Your task to perform on an android device: Clear all items from cart on newegg. Search for apple airpods pro on newegg, select the first entry, add it to the cart, then select checkout. Image 0: 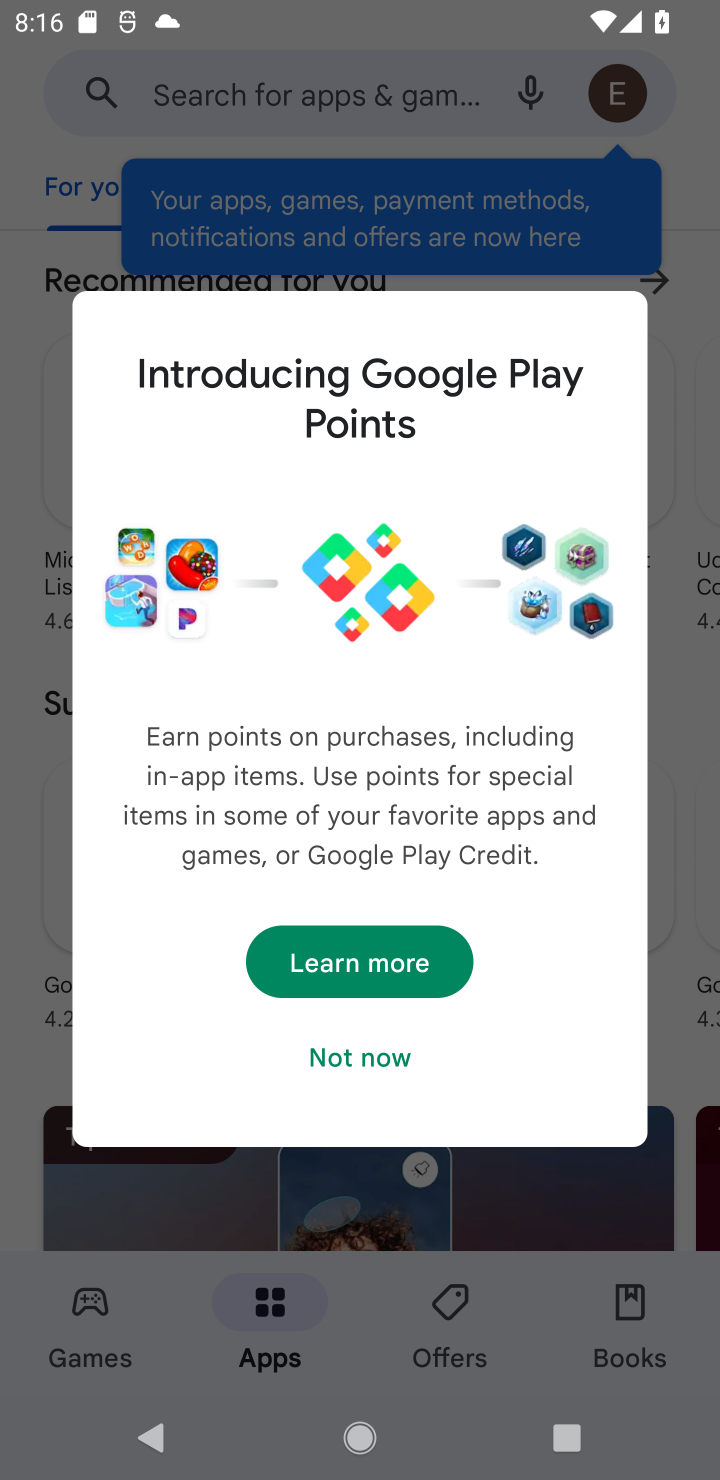
Step 0: press home button
Your task to perform on an android device: Clear all items from cart on newegg. Search for apple airpods pro on newegg, select the first entry, add it to the cart, then select checkout. Image 1: 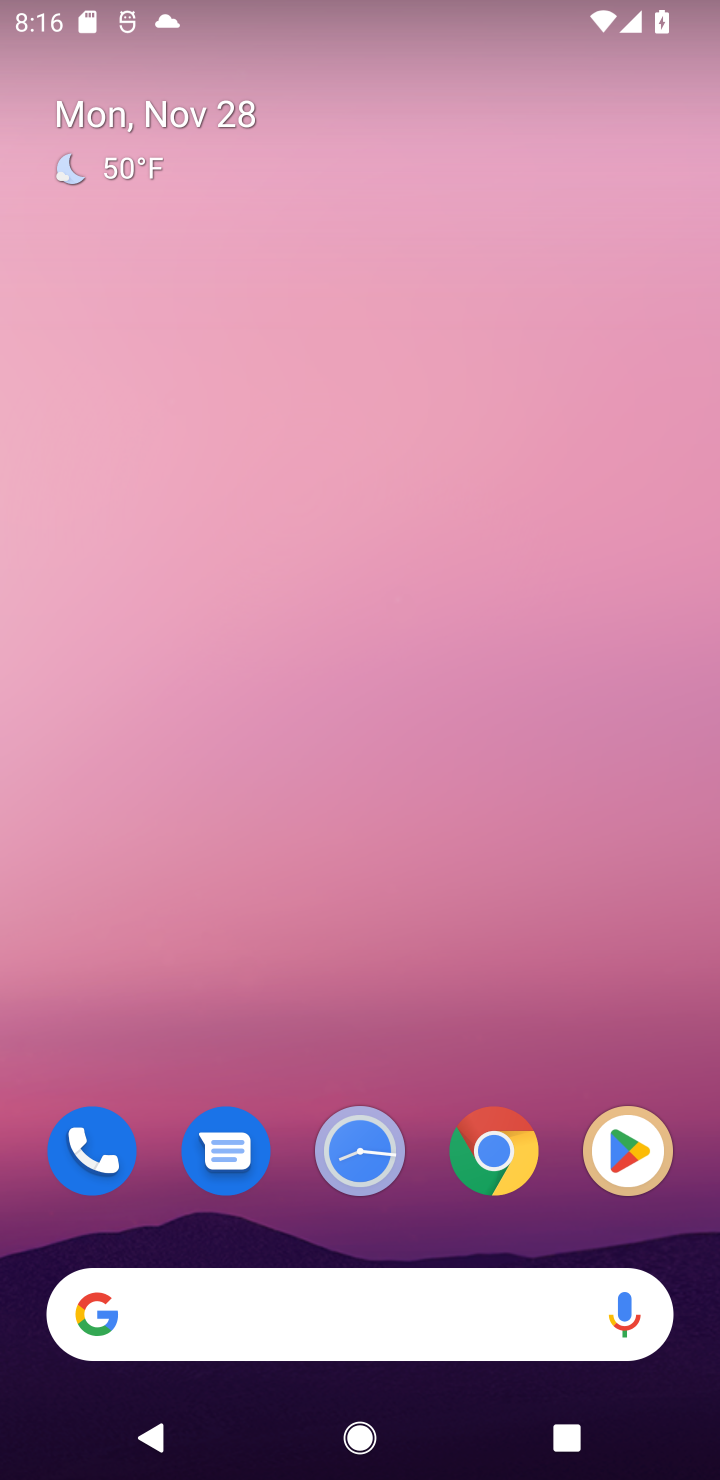
Step 1: click (351, 1326)
Your task to perform on an android device: Clear all items from cart on newegg. Search for apple airpods pro on newegg, select the first entry, add it to the cart, then select checkout. Image 2: 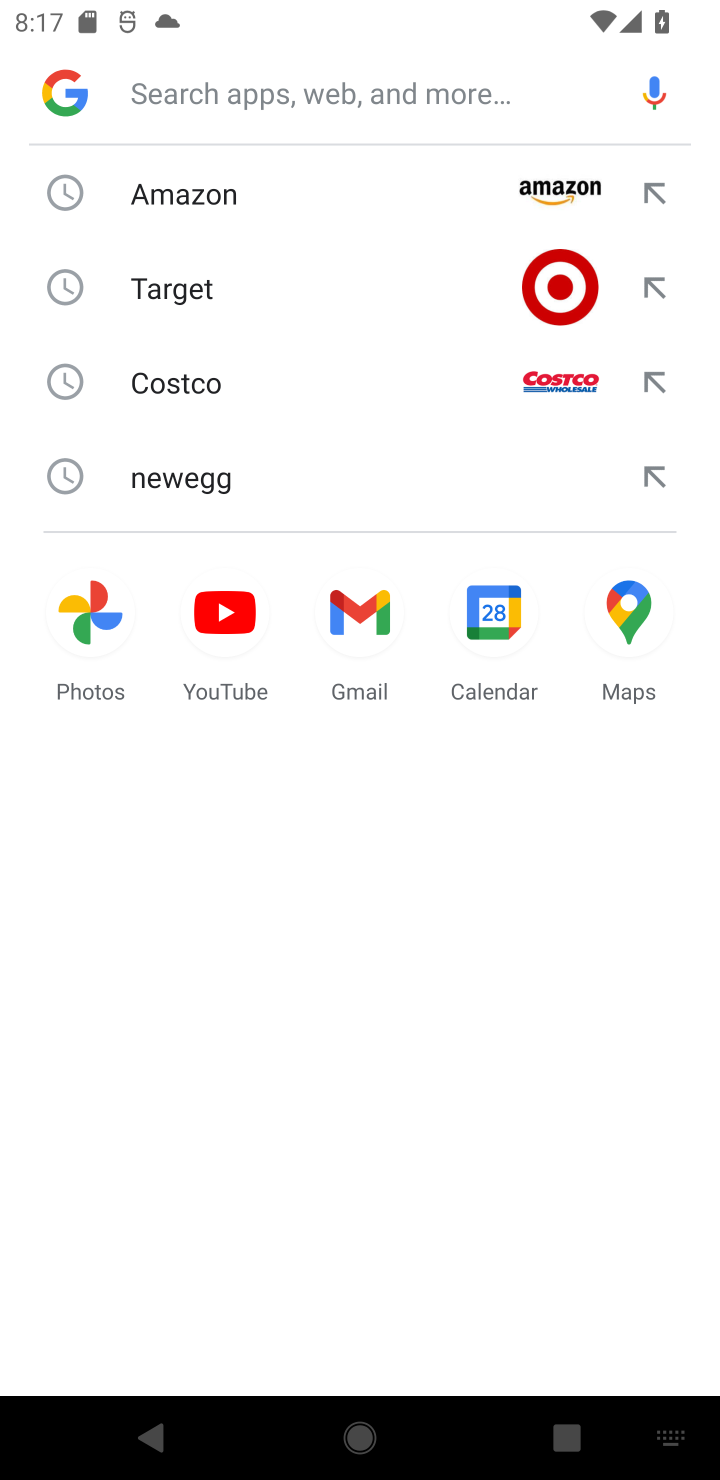
Step 2: type "apple airpod"
Your task to perform on an android device: Clear all items from cart on newegg. Search for apple airpods pro on newegg, select the first entry, add it to the cart, then select checkout. Image 3: 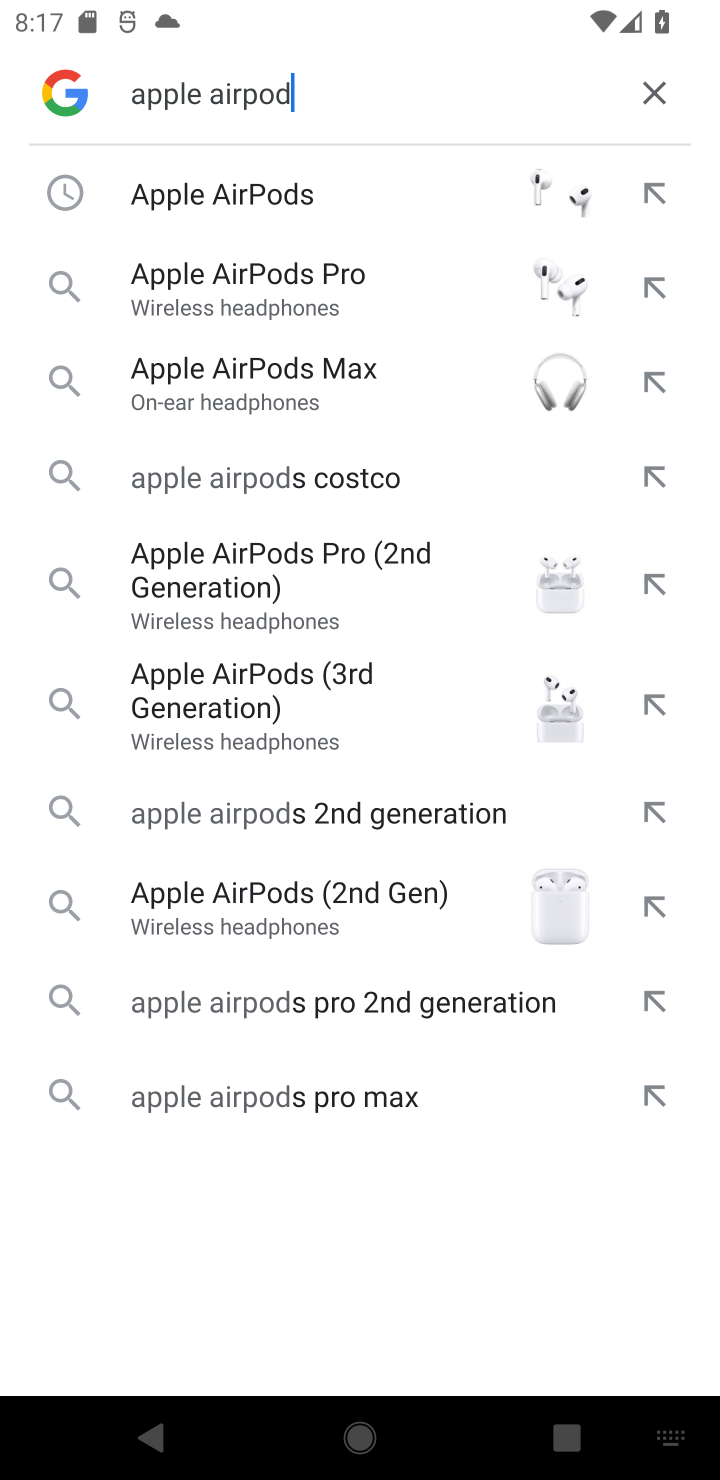
Step 3: click (264, 223)
Your task to perform on an android device: Clear all items from cart on newegg. Search for apple airpods pro on newegg, select the first entry, add it to the cart, then select checkout. Image 4: 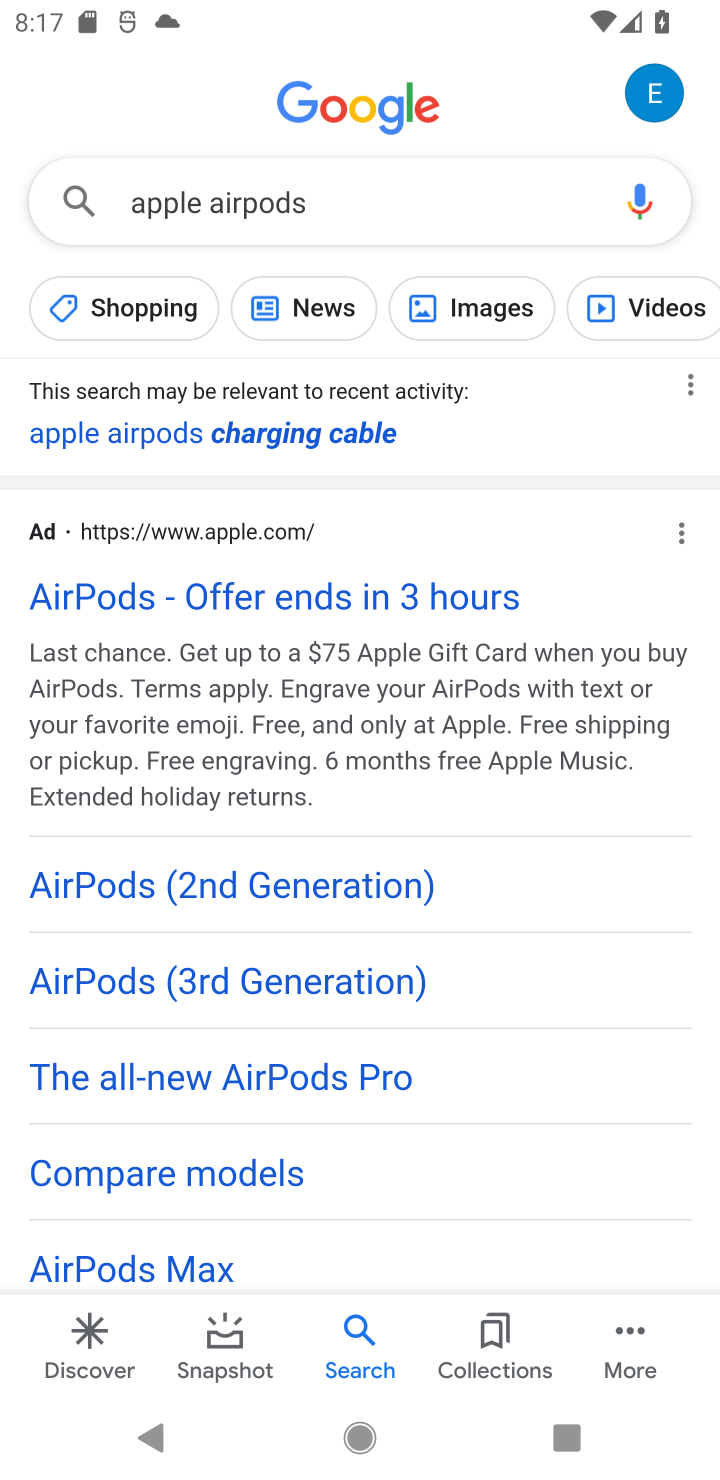
Step 4: click (235, 577)
Your task to perform on an android device: Clear all items from cart on newegg. Search for apple airpods pro on newegg, select the first entry, add it to the cart, then select checkout. Image 5: 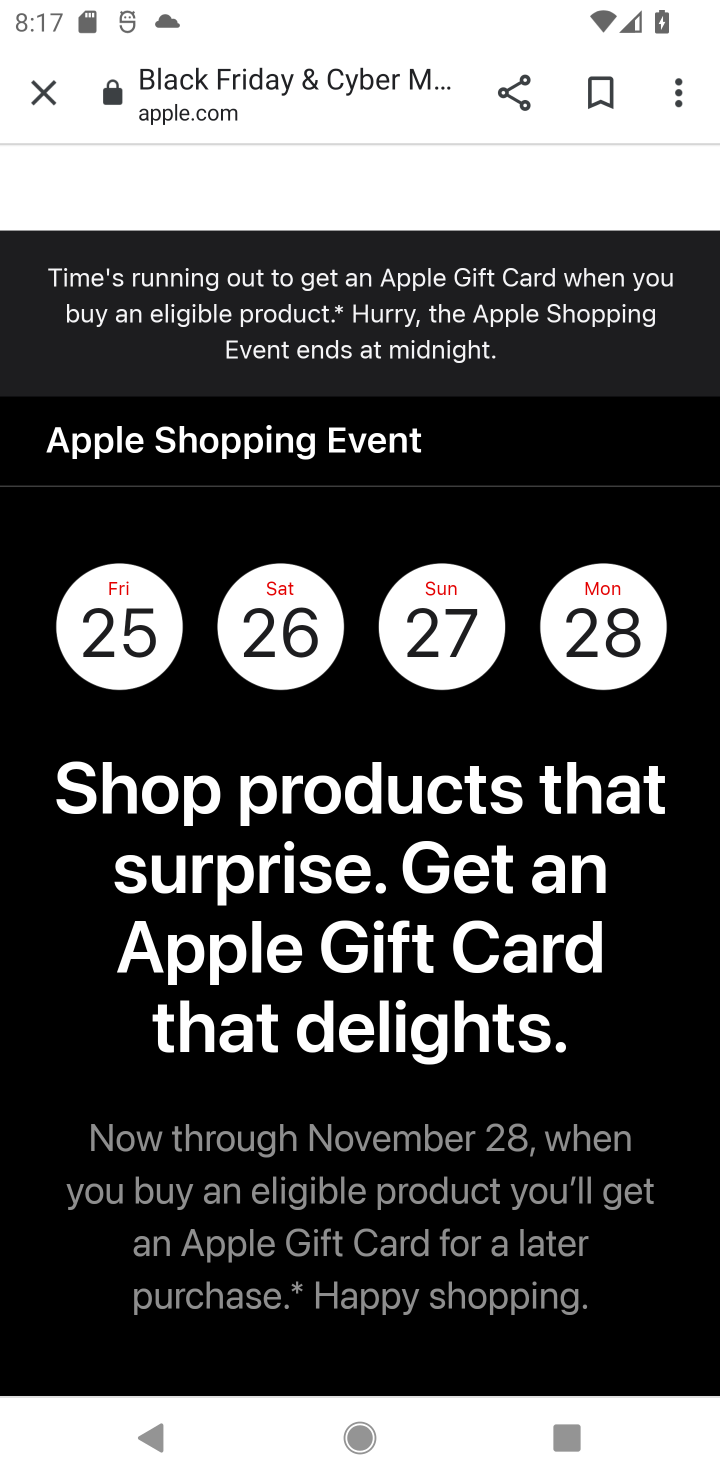
Step 5: task complete